Your task to perform on an android device: find which apps use the phone's location Image 0: 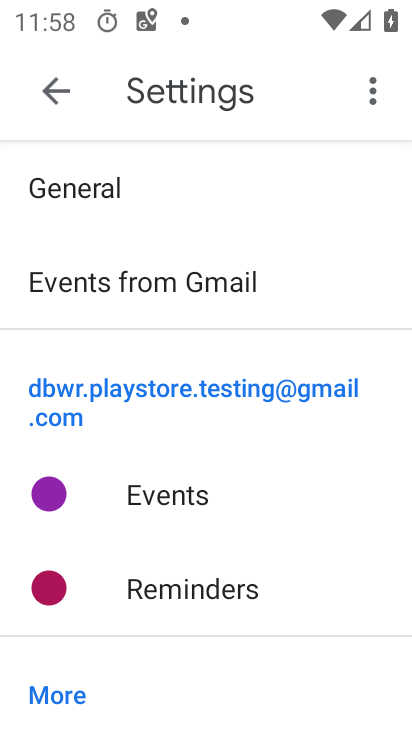
Step 0: press home button
Your task to perform on an android device: find which apps use the phone's location Image 1: 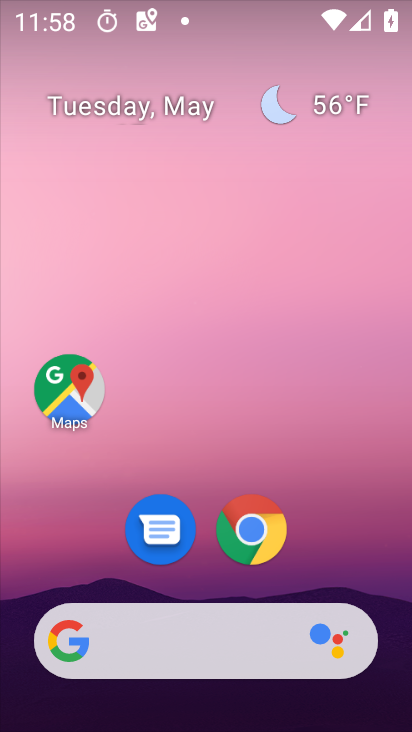
Step 1: drag from (189, 560) to (240, 189)
Your task to perform on an android device: find which apps use the phone's location Image 2: 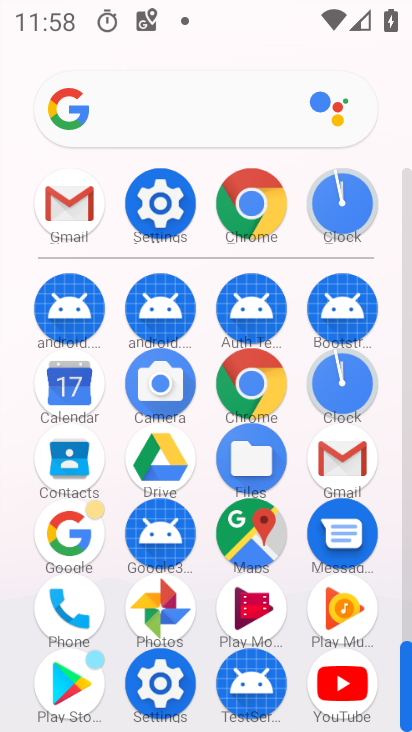
Step 2: click (164, 204)
Your task to perform on an android device: find which apps use the phone's location Image 3: 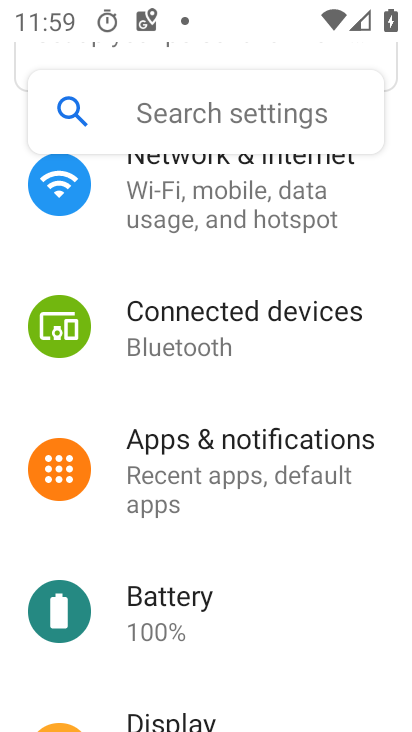
Step 3: drag from (147, 555) to (262, 129)
Your task to perform on an android device: find which apps use the phone's location Image 4: 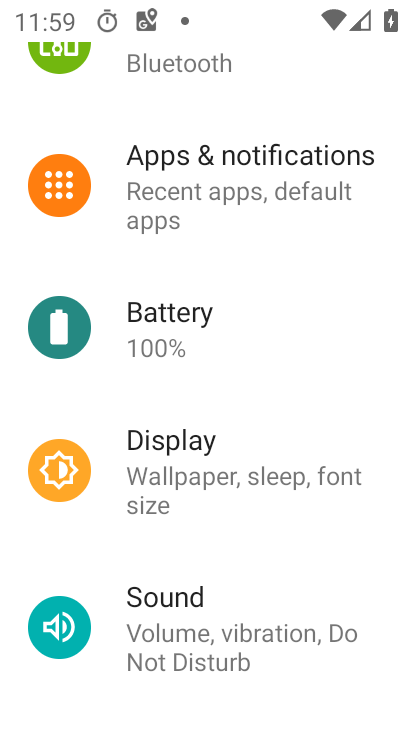
Step 4: drag from (177, 626) to (330, 94)
Your task to perform on an android device: find which apps use the phone's location Image 5: 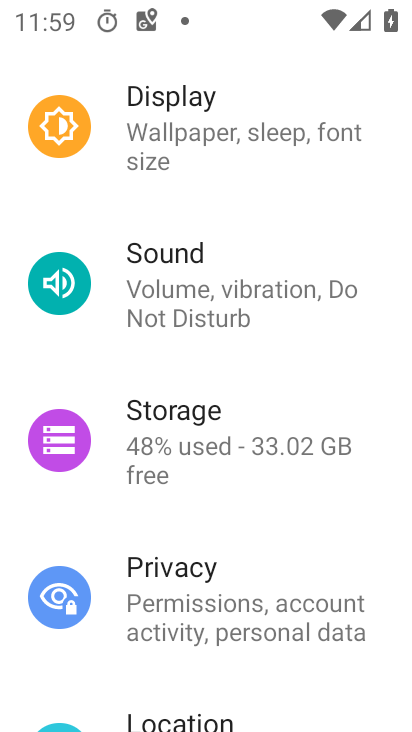
Step 5: drag from (120, 651) to (156, 391)
Your task to perform on an android device: find which apps use the phone's location Image 6: 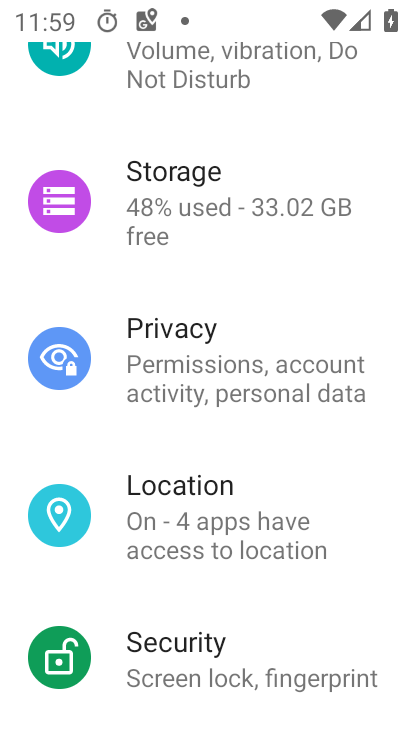
Step 6: click (276, 534)
Your task to perform on an android device: find which apps use the phone's location Image 7: 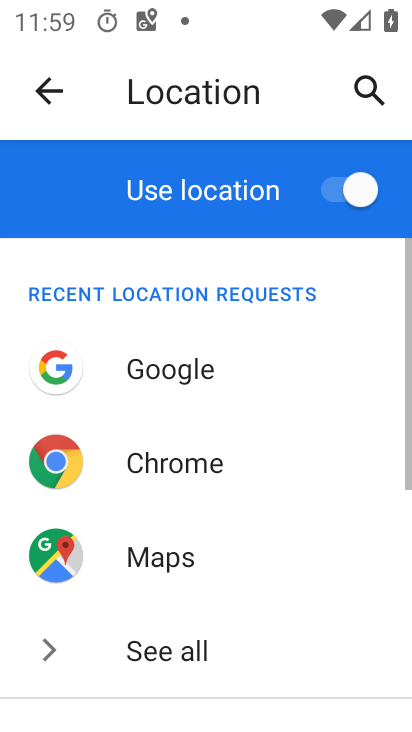
Step 7: click (143, 653)
Your task to perform on an android device: find which apps use the phone's location Image 8: 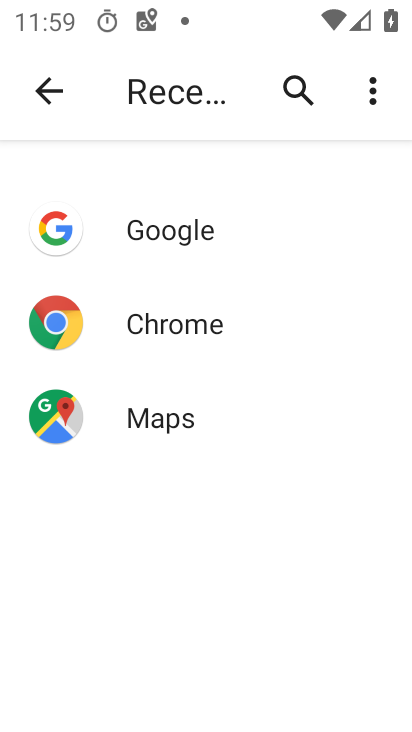
Step 8: task complete